Your task to perform on an android device: Show me recent news Image 0: 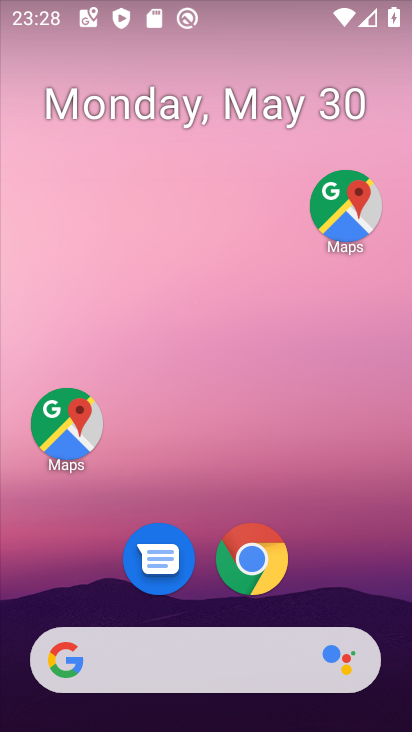
Step 0: click (259, 555)
Your task to perform on an android device: Show me recent news Image 1: 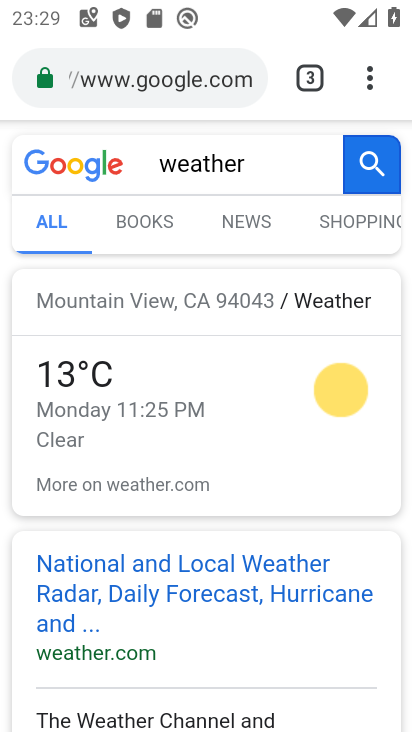
Step 1: click (199, 88)
Your task to perform on an android device: Show me recent news Image 2: 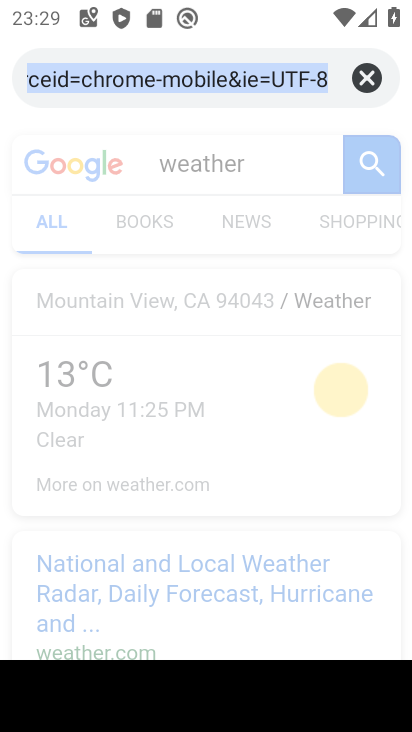
Step 2: type "news"
Your task to perform on an android device: Show me recent news Image 3: 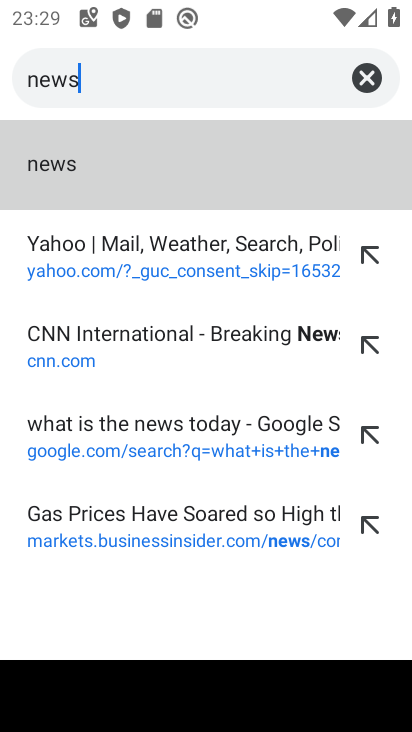
Step 3: click (66, 162)
Your task to perform on an android device: Show me recent news Image 4: 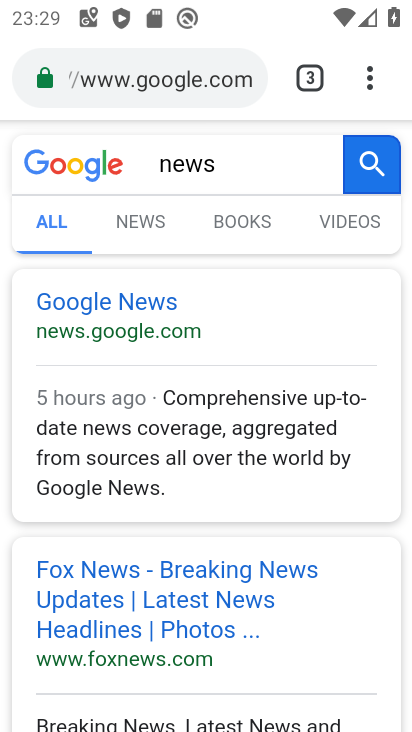
Step 4: click (145, 229)
Your task to perform on an android device: Show me recent news Image 5: 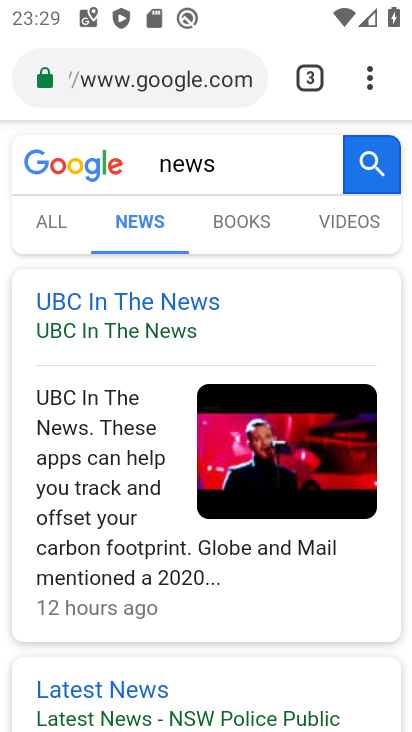
Step 5: task complete